Your task to perform on an android device: Open Chrome and go to settings Image 0: 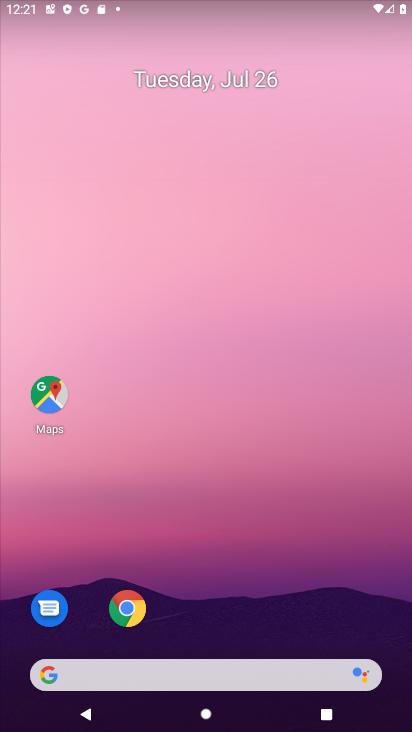
Step 0: click (121, 604)
Your task to perform on an android device: Open Chrome and go to settings Image 1: 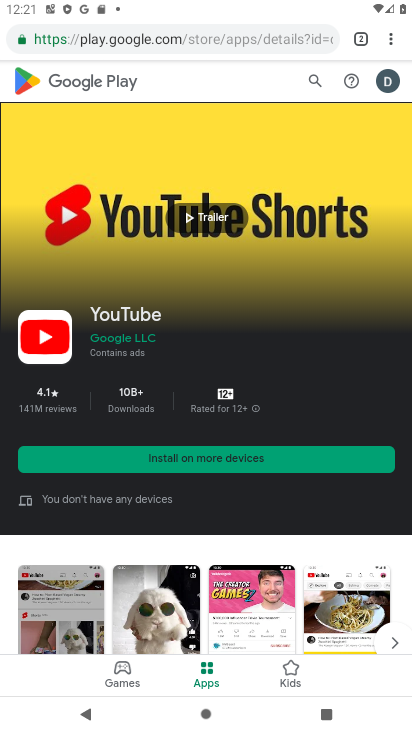
Step 1: click (395, 37)
Your task to perform on an android device: Open Chrome and go to settings Image 2: 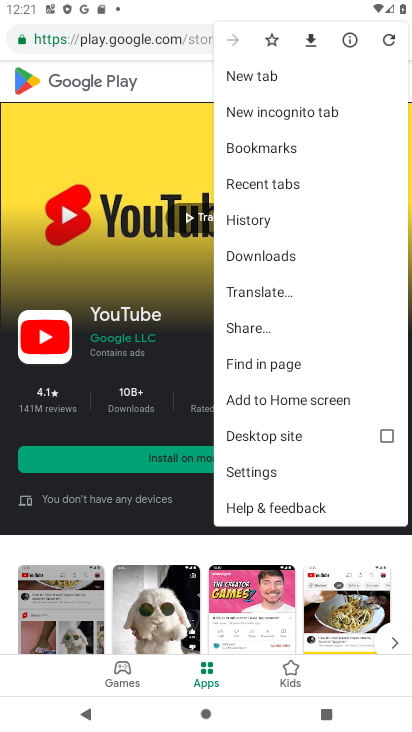
Step 2: click (275, 479)
Your task to perform on an android device: Open Chrome and go to settings Image 3: 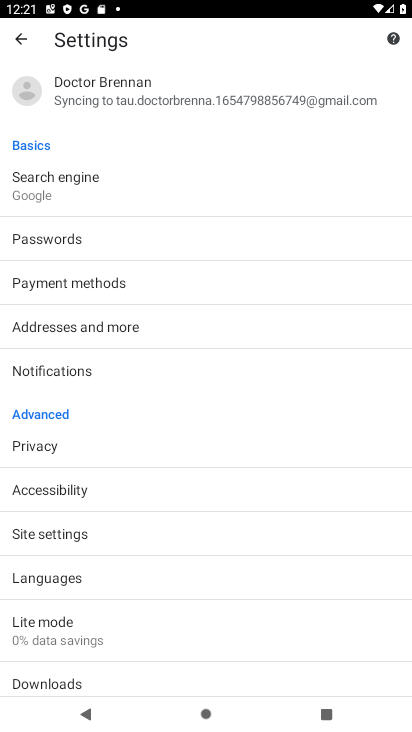
Step 3: task complete